Your task to perform on an android device: Open Reddit.com Image 0: 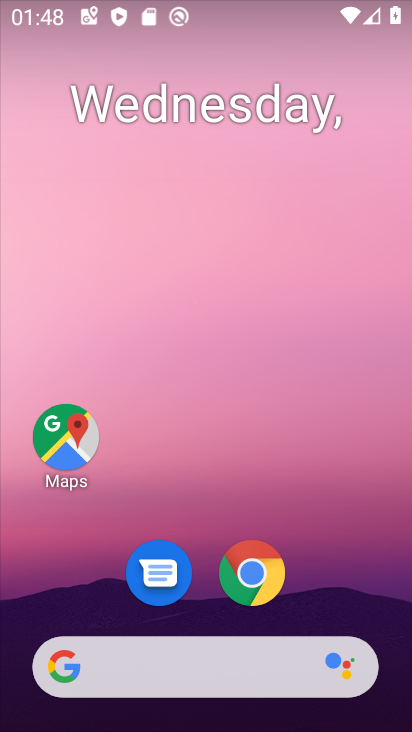
Step 0: click (250, 575)
Your task to perform on an android device: Open Reddit.com Image 1: 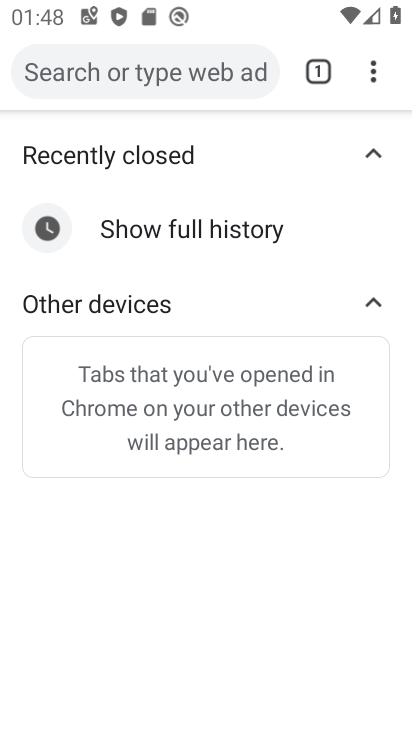
Step 1: click (217, 73)
Your task to perform on an android device: Open Reddit.com Image 2: 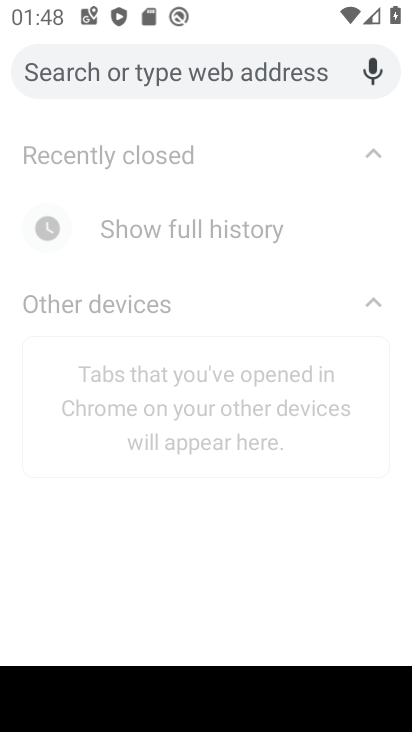
Step 2: type "Reddit.com"
Your task to perform on an android device: Open Reddit.com Image 3: 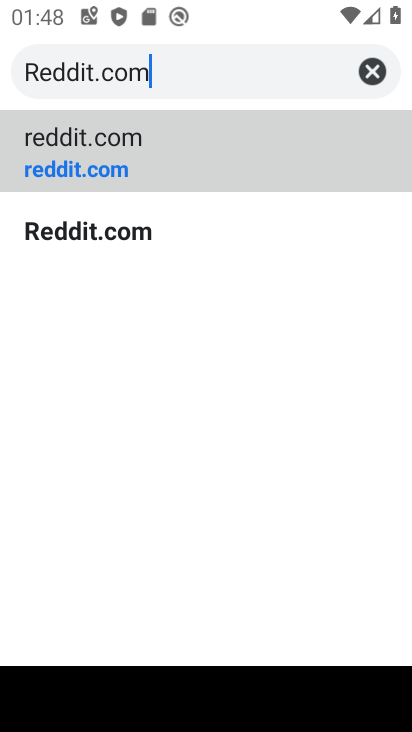
Step 3: type ""
Your task to perform on an android device: Open Reddit.com Image 4: 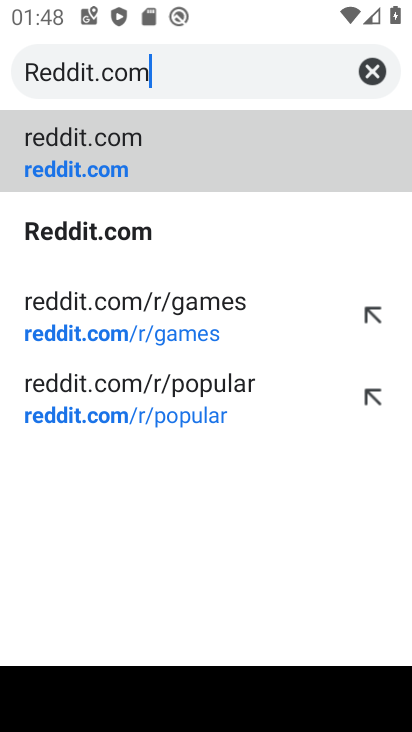
Step 4: click (91, 221)
Your task to perform on an android device: Open Reddit.com Image 5: 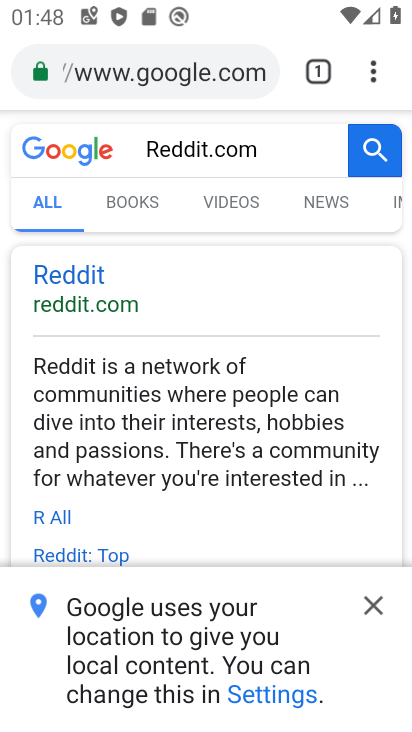
Step 5: click (373, 606)
Your task to perform on an android device: Open Reddit.com Image 6: 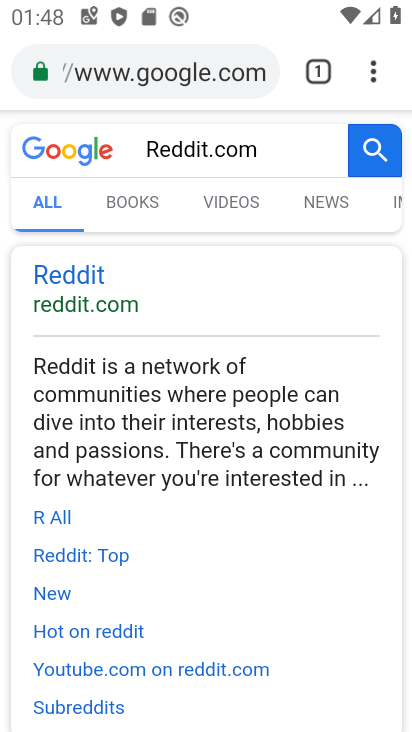
Step 6: click (72, 305)
Your task to perform on an android device: Open Reddit.com Image 7: 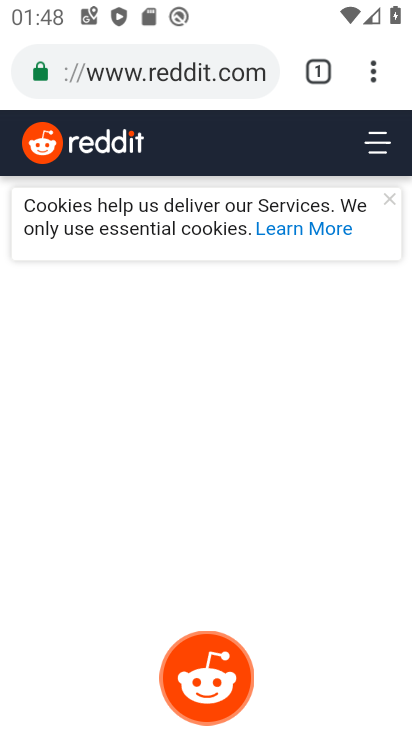
Step 7: task complete